Your task to perform on an android device: see creations saved in the google photos Image 0: 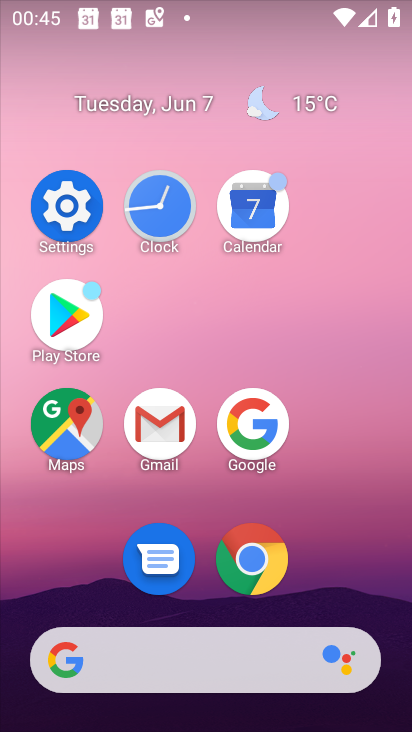
Step 0: drag from (324, 524) to (316, 147)
Your task to perform on an android device: see creations saved in the google photos Image 1: 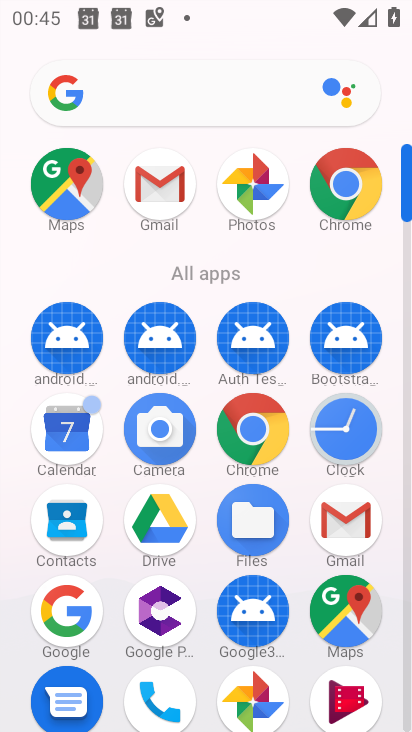
Step 1: drag from (263, 194) to (305, 387)
Your task to perform on an android device: see creations saved in the google photos Image 2: 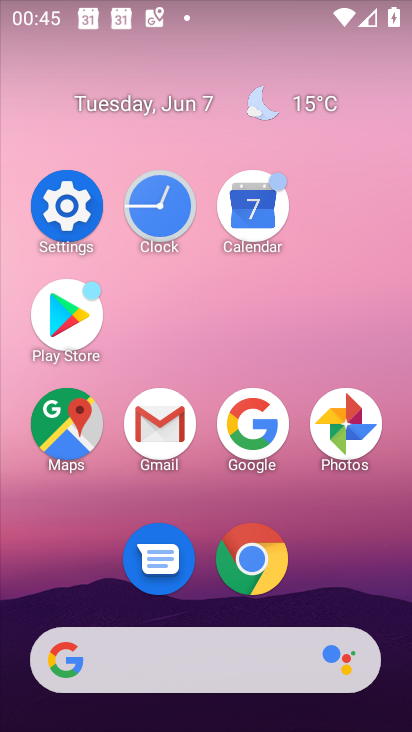
Step 2: click (356, 442)
Your task to perform on an android device: see creations saved in the google photos Image 3: 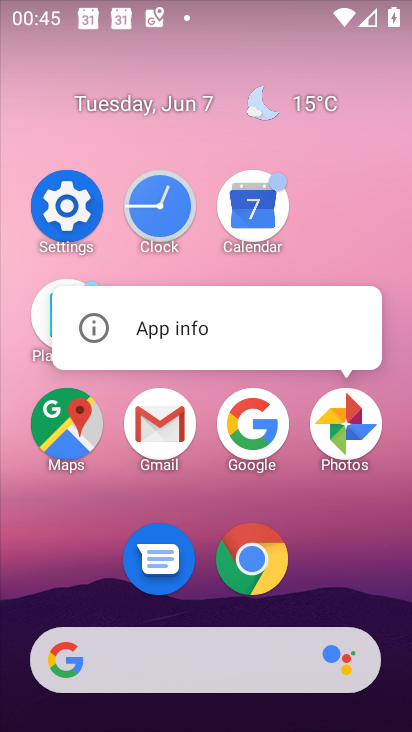
Step 3: click (356, 442)
Your task to perform on an android device: see creations saved in the google photos Image 4: 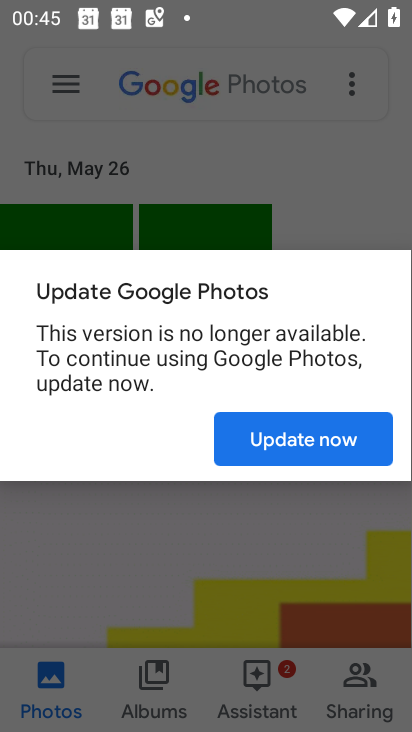
Step 4: click (330, 431)
Your task to perform on an android device: see creations saved in the google photos Image 5: 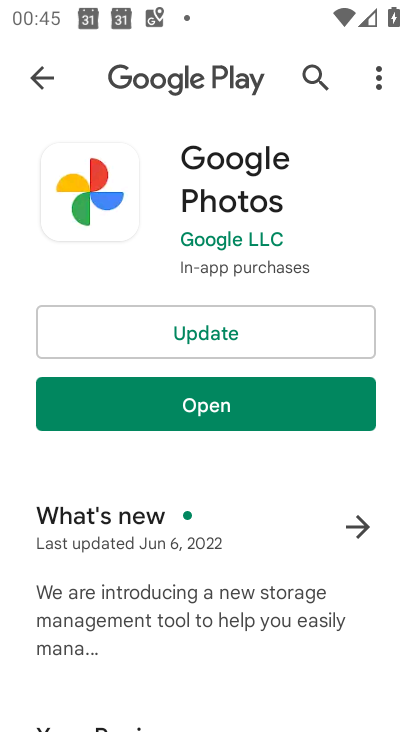
Step 5: click (296, 413)
Your task to perform on an android device: see creations saved in the google photos Image 6: 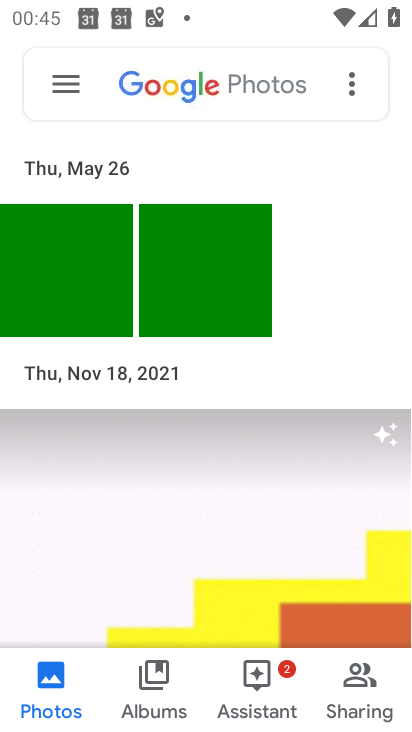
Step 6: click (171, 67)
Your task to perform on an android device: see creations saved in the google photos Image 7: 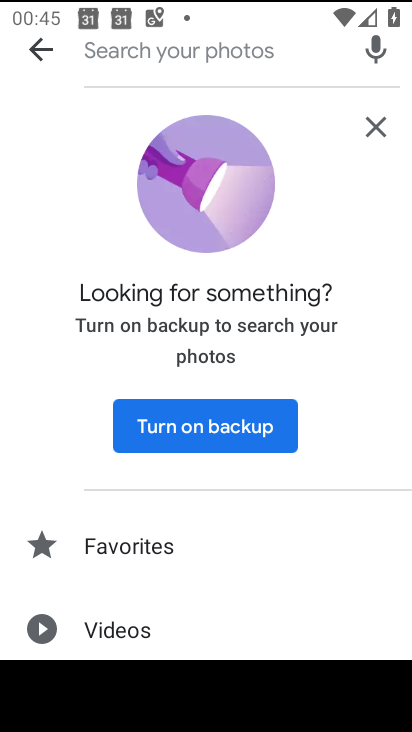
Step 7: drag from (227, 500) to (182, 186)
Your task to perform on an android device: see creations saved in the google photos Image 8: 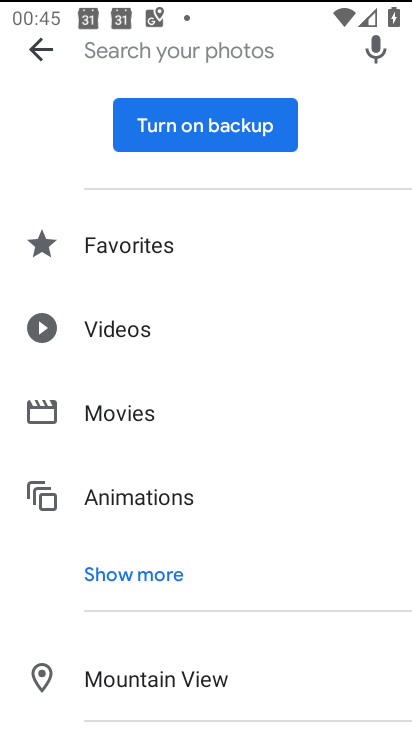
Step 8: click (187, 582)
Your task to perform on an android device: see creations saved in the google photos Image 9: 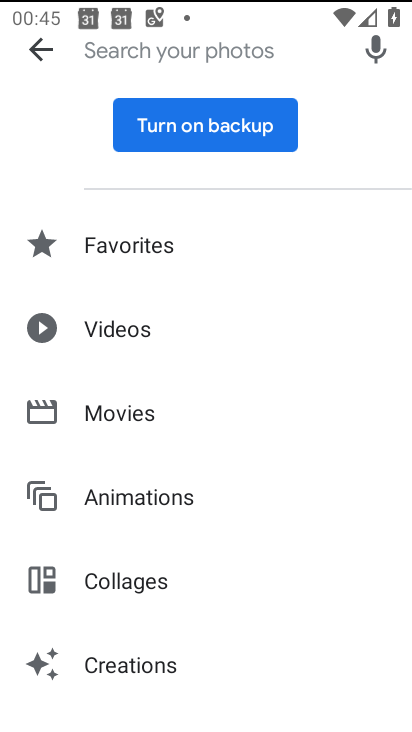
Step 9: click (151, 654)
Your task to perform on an android device: see creations saved in the google photos Image 10: 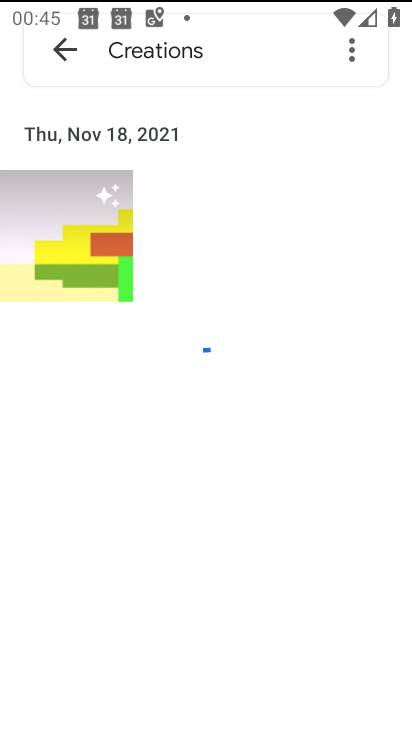
Step 10: task complete